Your task to perform on an android device: read, delete, or share a saved page in the chrome app Image 0: 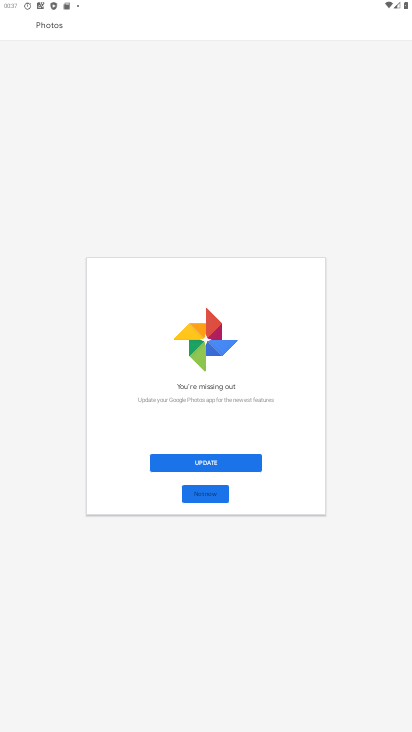
Step 0: press home button
Your task to perform on an android device: read, delete, or share a saved page in the chrome app Image 1: 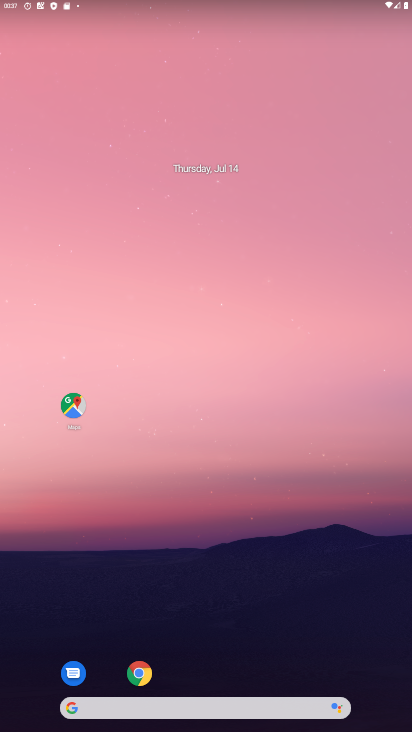
Step 1: click (133, 670)
Your task to perform on an android device: read, delete, or share a saved page in the chrome app Image 2: 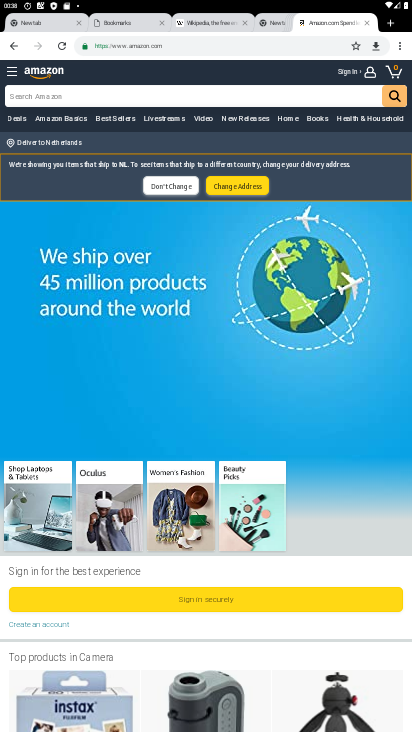
Step 2: click (394, 48)
Your task to perform on an android device: read, delete, or share a saved page in the chrome app Image 3: 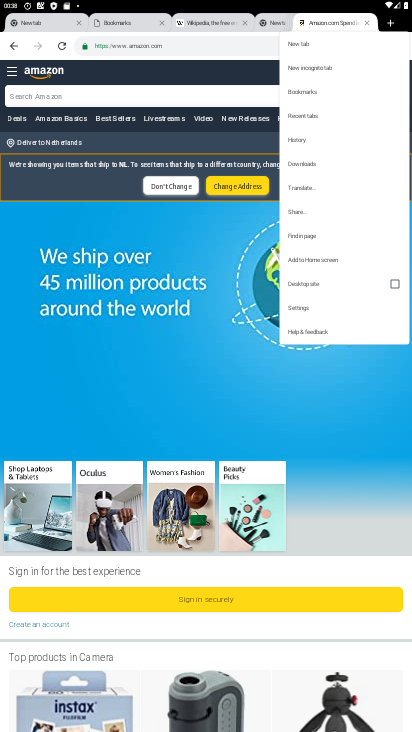
Step 3: click (323, 162)
Your task to perform on an android device: read, delete, or share a saved page in the chrome app Image 4: 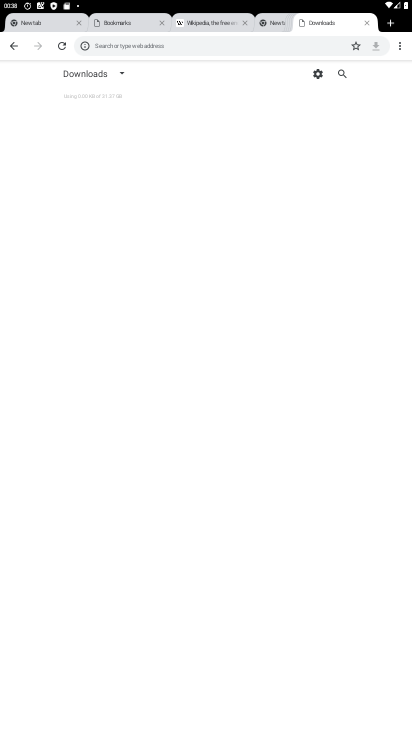
Step 4: click (127, 71)
Your task to perform on an android device: read, delete, or share a saved page in the chrome app Image 5: 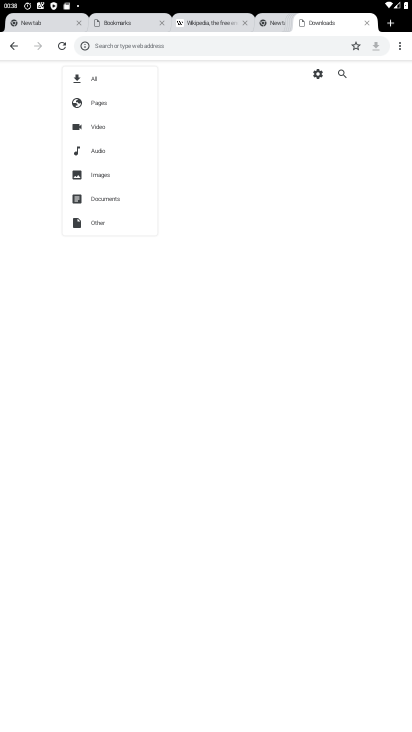
Step 5: click (96, 103)
Your task to perform on an android device: read, delete, or share a saved page in the chrome app Image 6: 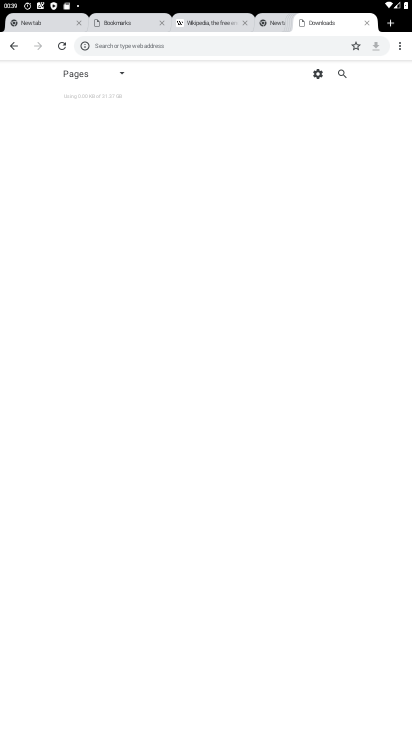
Step 6: task complete